Your task to perform on an android device: Open location settings Image 0: 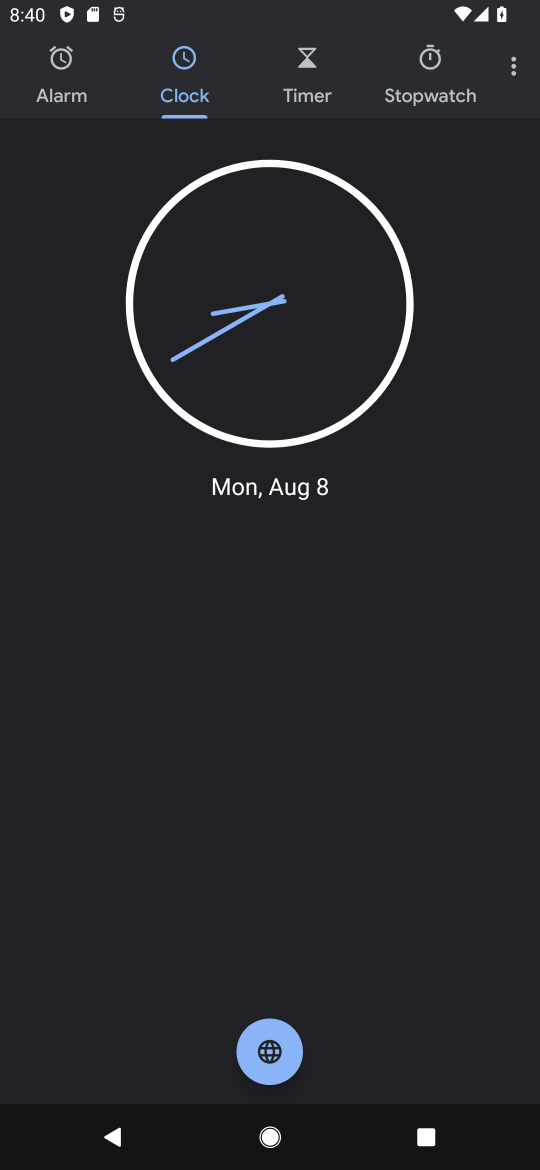
Step 0: press back button
Your task to perform on an android device: Open location settings Image 1: 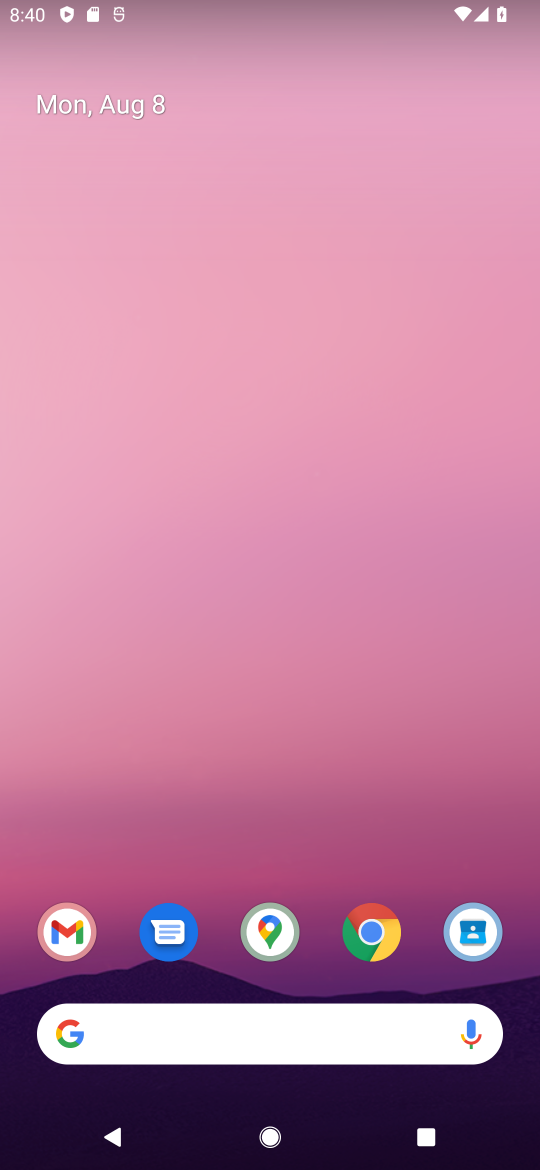
Step 1: drag from (272, 887) to (384, 45)
Your task to perform on an android device: Open location settings Image 2: 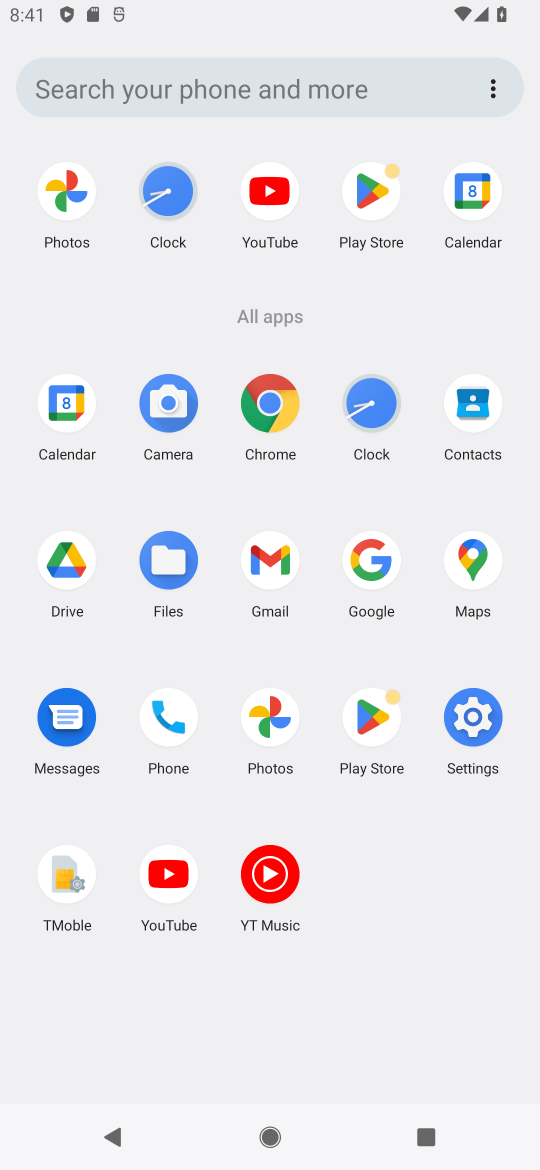
Step 2: click (479, 736)
Your task to perform on an android device: Open location settings Image 3: 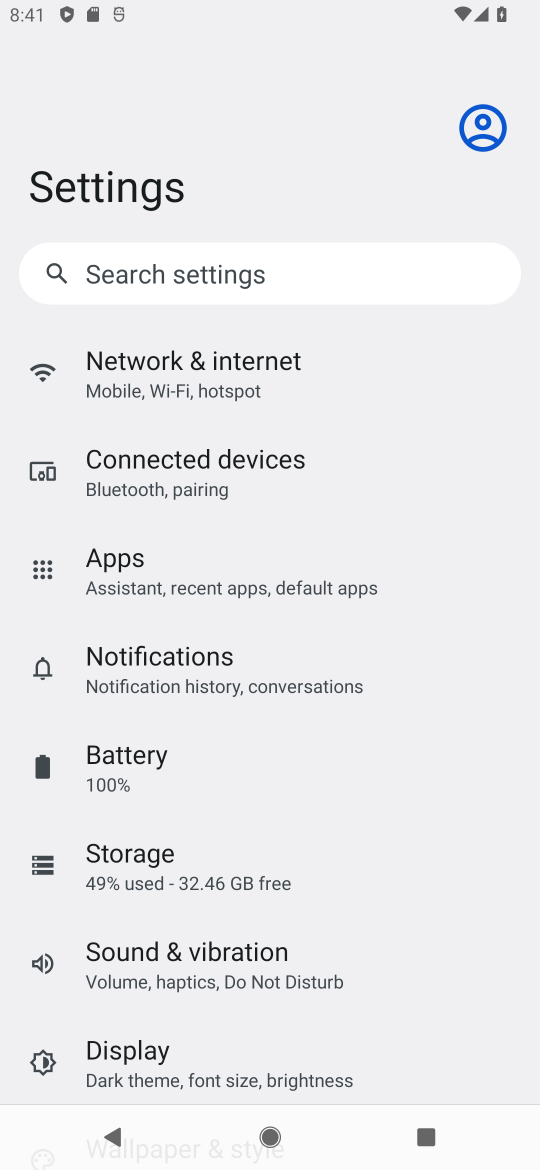
Step 3: drag from (215, 969) to (324, 275)
Your task to perform on an android device: Open location settings Image 4: 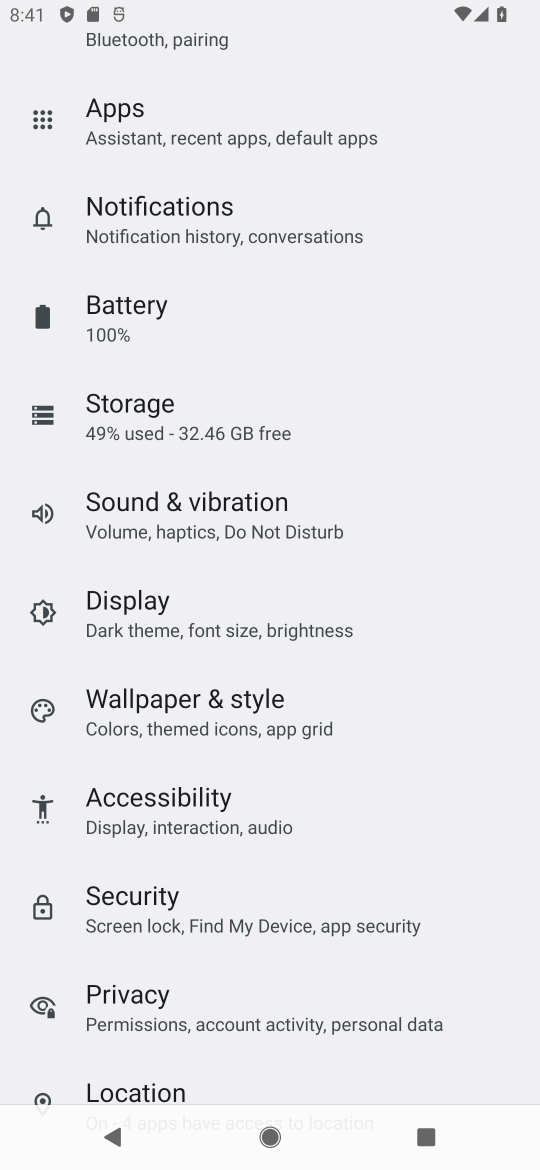
Step 4: click (155, 1088)
Your task to perform on an android device: Open location settings Image 5: 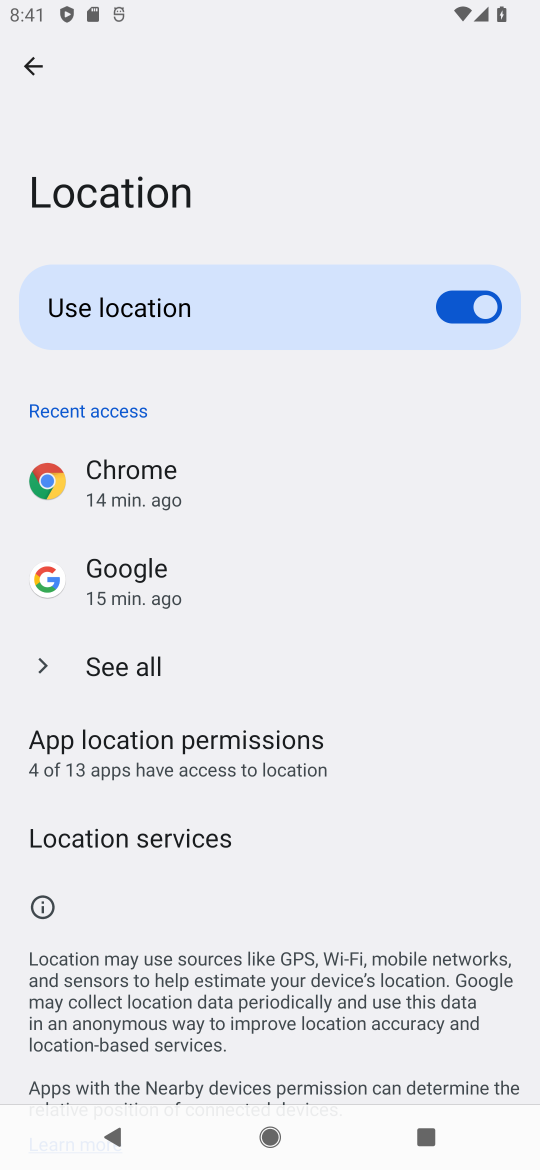
Step 5: task complete